Your task to perform on an android device: Open the map Image 0: 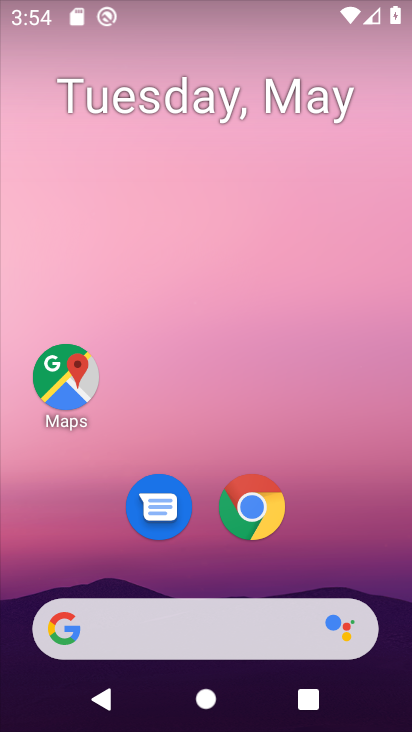
Step 0: drag from (279, 575) to (332, 39)
Your task to perform on an android device: Open the map Image 1: 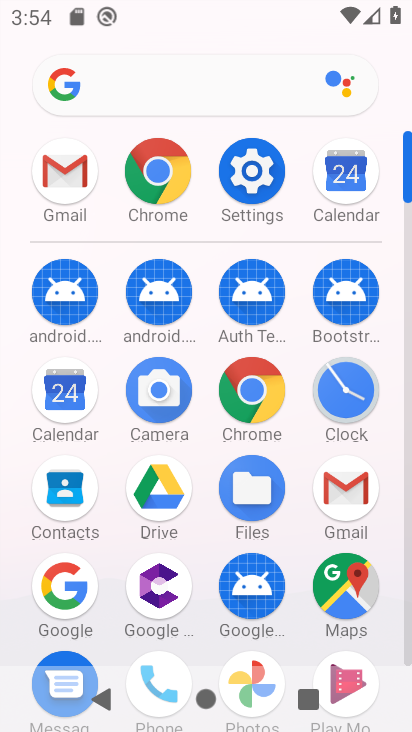
Step 1: click (356, 581)
Your task to perform on an android device: Open the map Image 2: 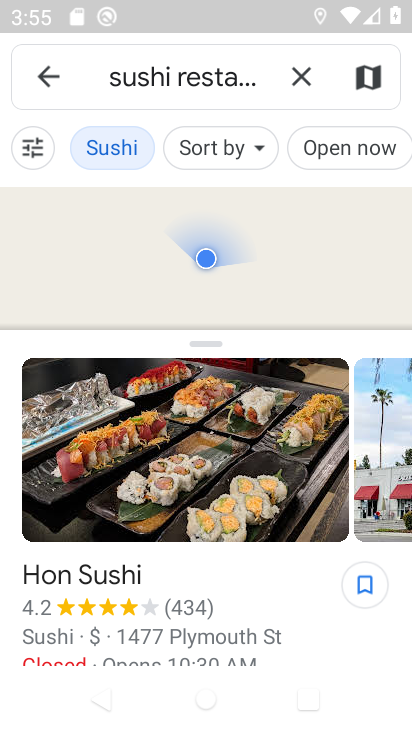
Step 2: click (36, 81)
Your task to perform on an android device: Open the map Image 3: 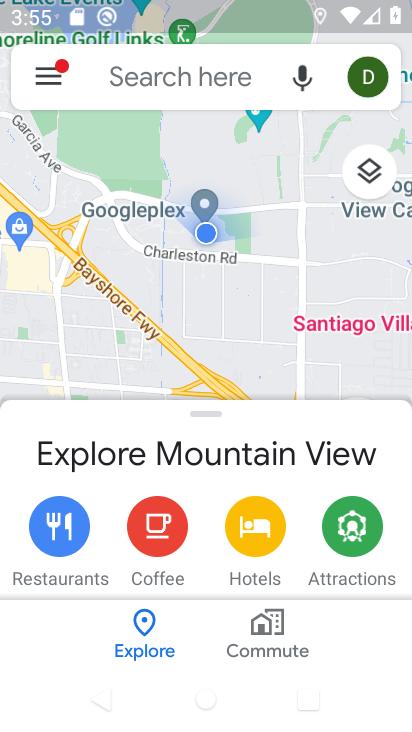
Step 3: task complete